Your task to perform on an android device: Open Yahoo.com Image 0: 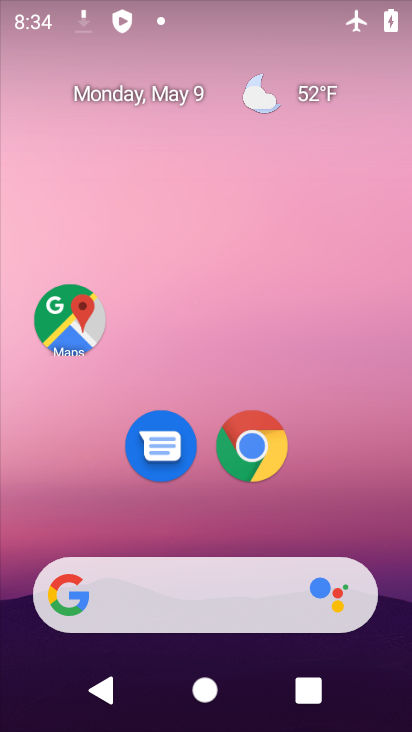
Step 0: click (251, 451)
Your task to perform on an android device: Open Yahoo.com Image 1: 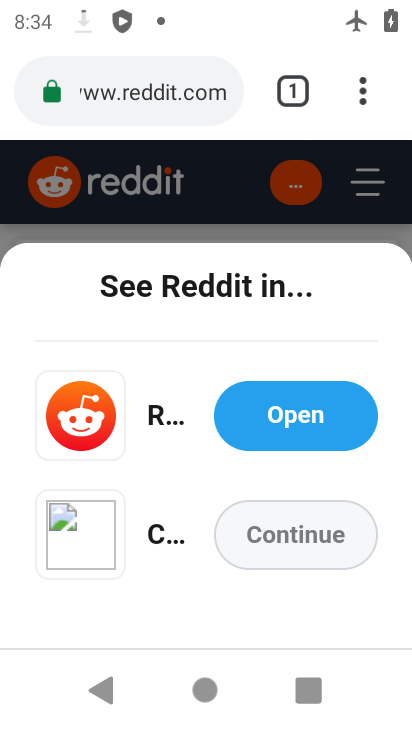
Step 1: click (136, 87)
Your task to perform on an android device: Open Yahoo.com Image 2: 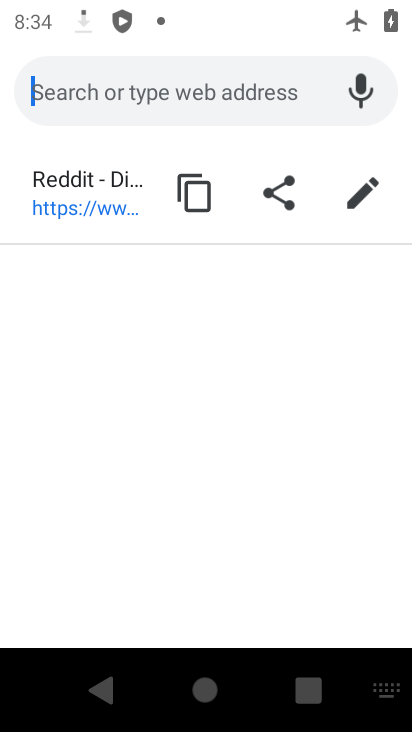
Step 2: type "yahoo.com"
Your task to perform on an android device: Open Yahoo.com Image 3: 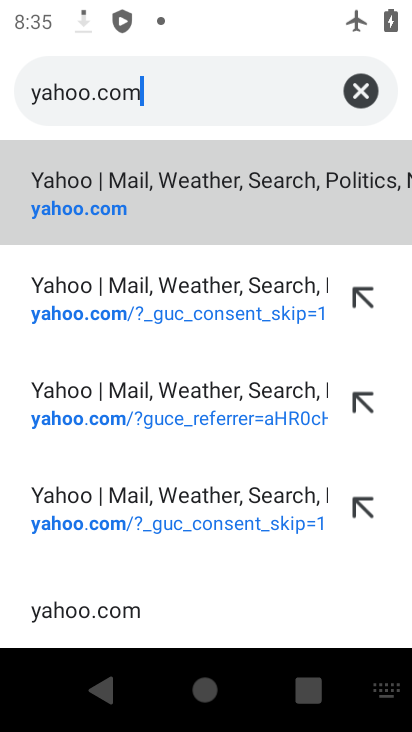
Step 3: click (91, 208)
Your task to perform on an android device: Open Yahoo.com Image 4: 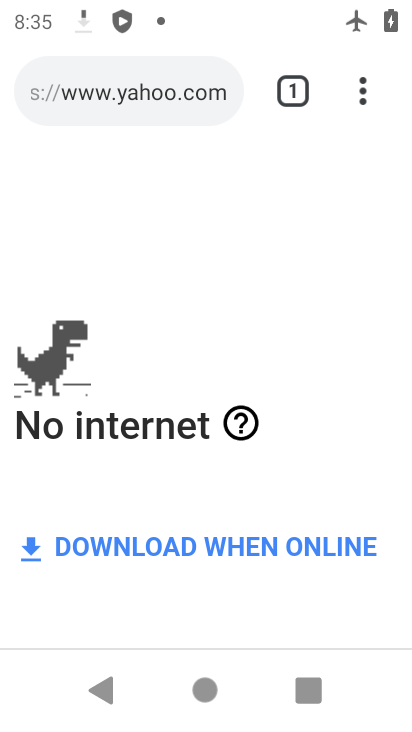
Step 4: task complete